Your task to perform on an android device: Open settings Image 0: 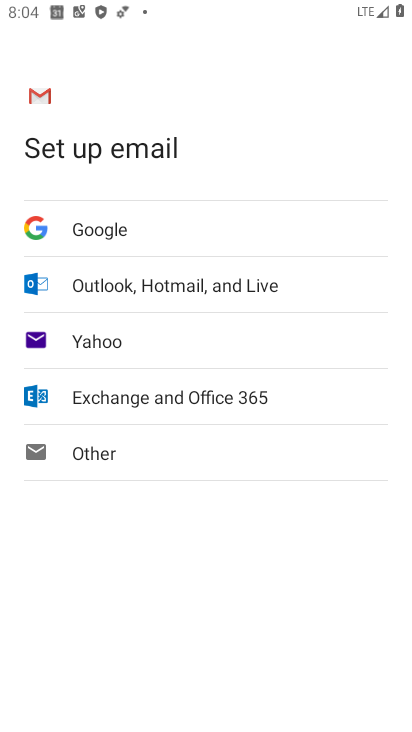
Step 0: press home button
Your task to perform on an android device: Open settings Image 1: 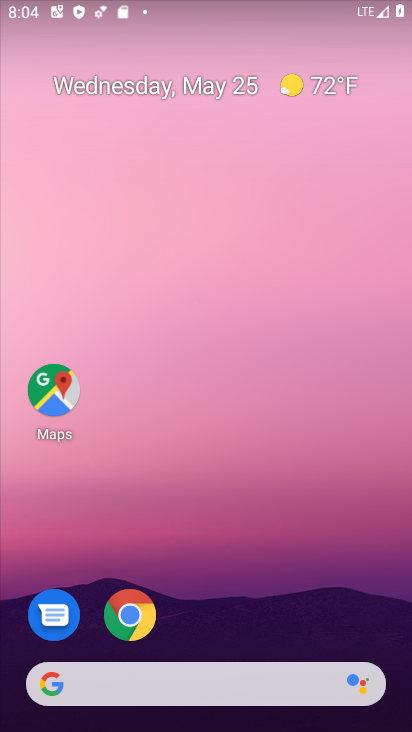
Step 1: drag from (228, 511) to (237, 41)
Your task to perform on an android device: Open settings Image 2: 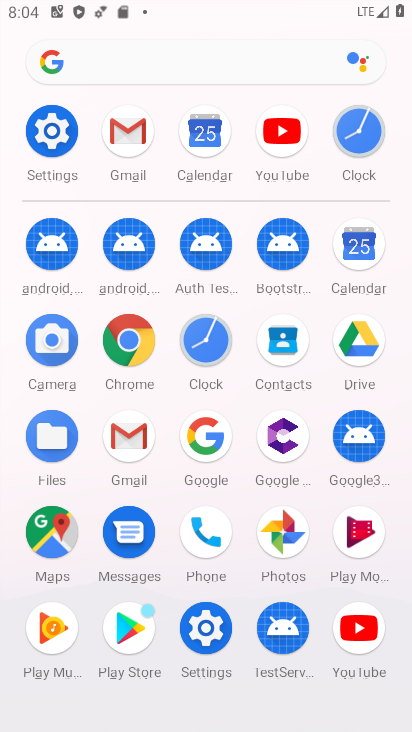
Step 2: click (55, 116)
Your task to perform on an android device: Open settings Image 3: 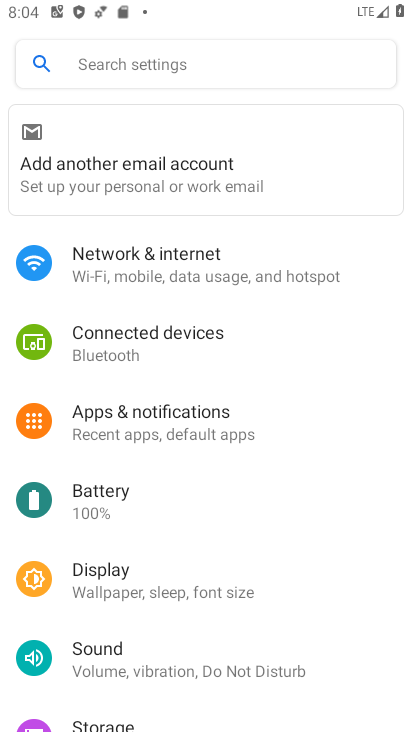
Step 3: task complete